Your task to perform on an android device: Go to Google Image 0: 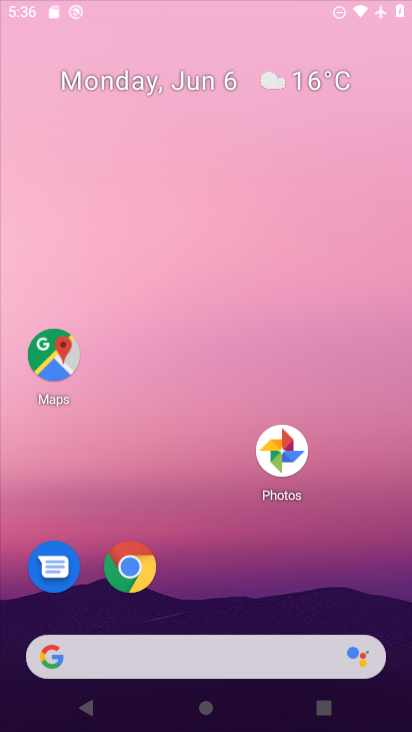
Step 0: drag from (246, 615) to (187, 116)
Your task to perform on an android device: Go to Google Image 1: 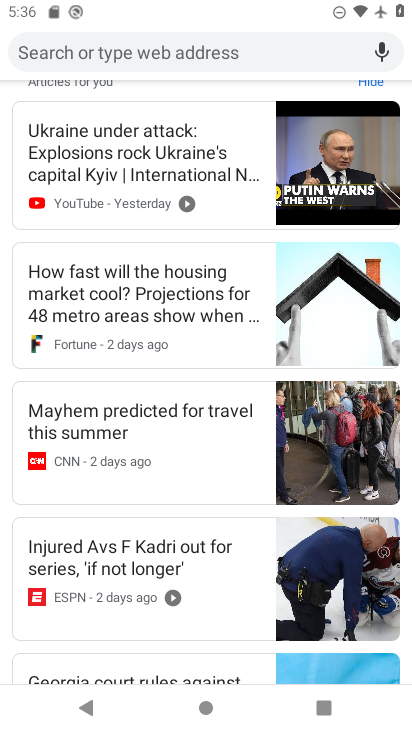
Step 1: press back button
Your task to perform on an android device: Go to Google Image 2: 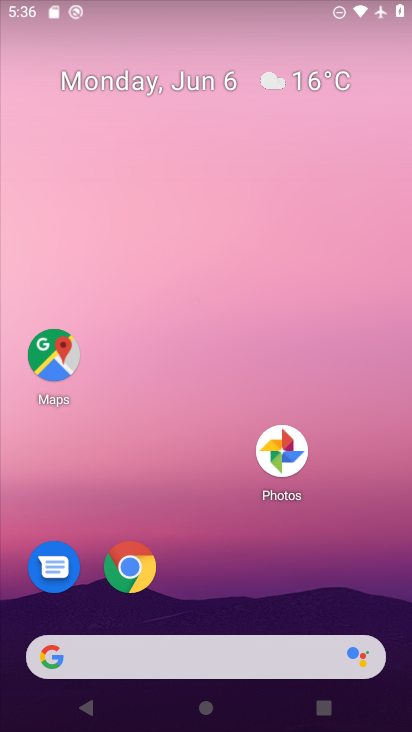
Step 2: drag from (224, 682) to (165, 186)
Your task to perform on an android device: Go to Google Image 3: 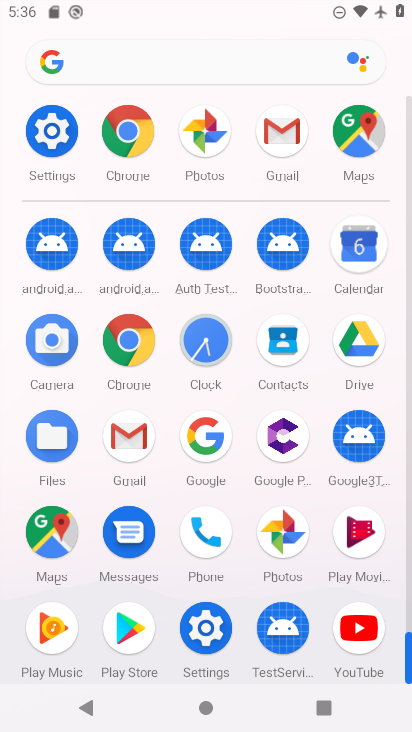
Step 3: click (186, 442)
Your task to perform on an android device: Go to Google Image 4: 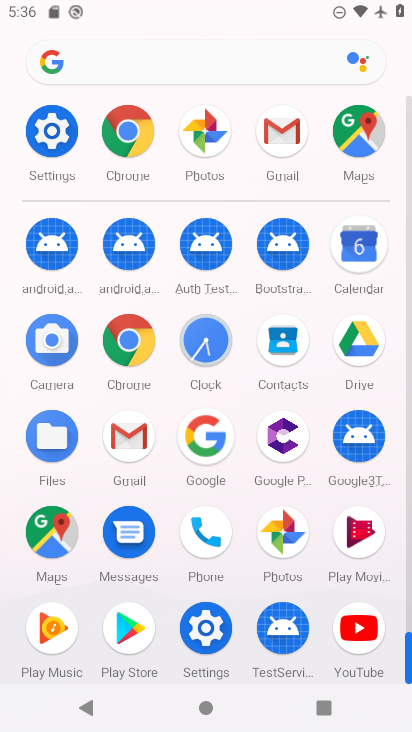
Step 4: click (188, 441)
Your task to perform on an android device: Go to Google Image 5: 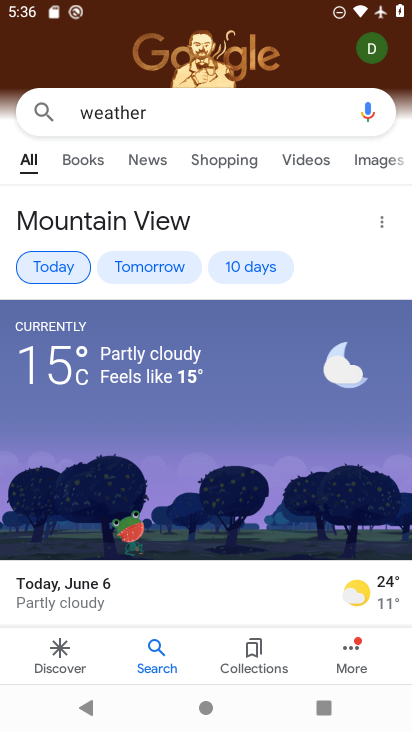
Step 5: click (188, 438)
Your task to perform on an android device: Go to Google Image 6: 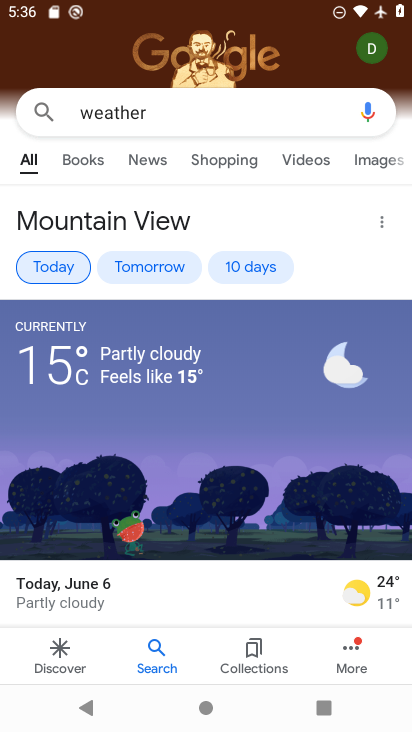
Step 6: task complete